Your task to perform on an android device: turn off notifications in google photos Image 0: 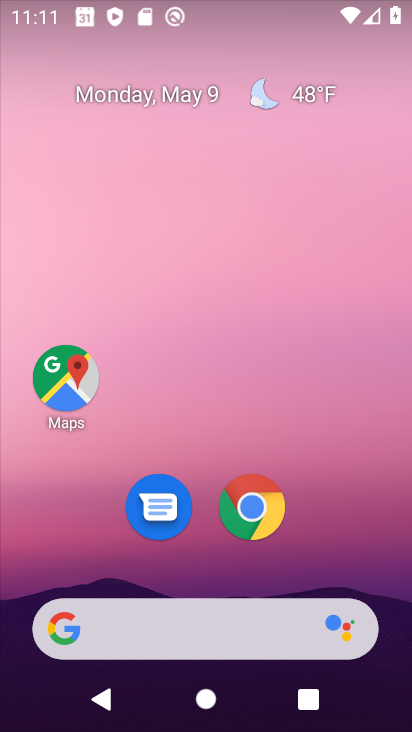
Step 0: drag from (335, 538) to (307, 166)
Your task to perform on an android device: turn off notifications in google photos Image 1: 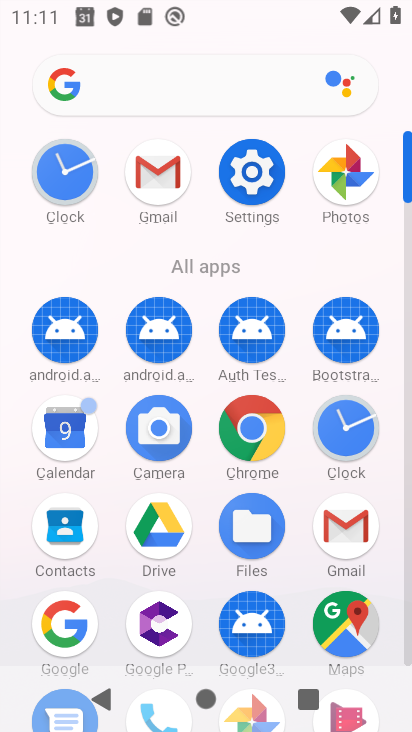
Step 1: drag from (290, 643) to (272, 391)
Your task to perform on an android device: turn off notifications in google photos Image 2: 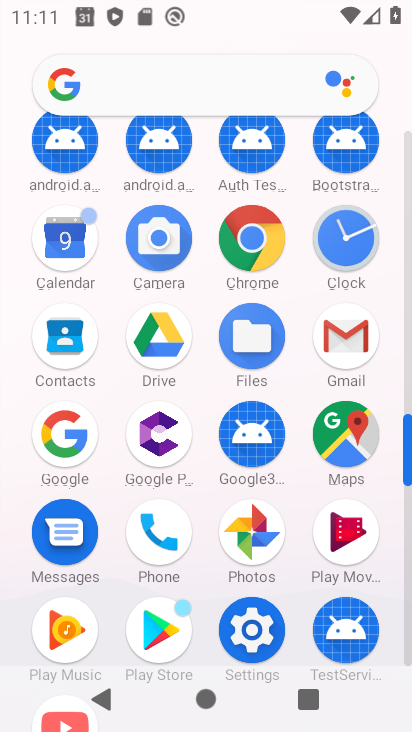
Step 2: click (254, 541)
Your task to perform on an android device: turn off notifications in google photos Image 3: 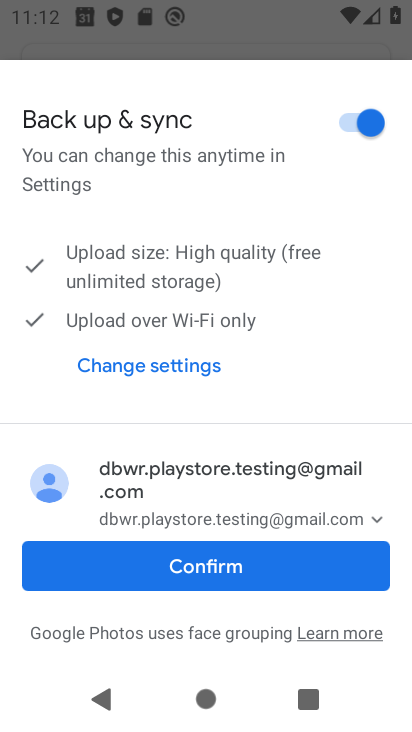
Step 3: click (270, 570)
Your task to perform on an android device: turn off notifications in google photos Image 4: 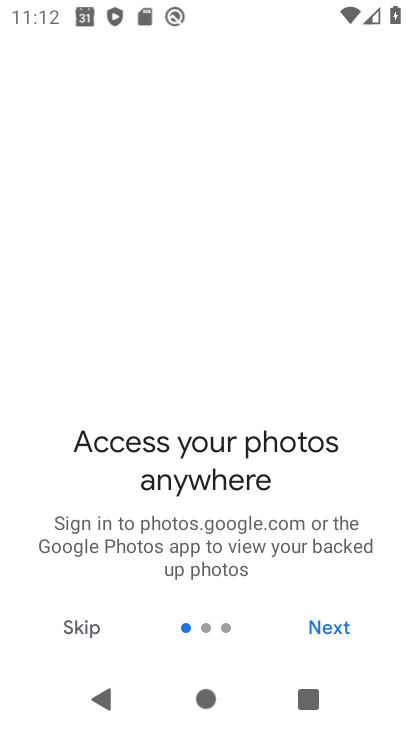
Step 4: click (320, 620)
Your task to perform on an android device: turn off notifications in google photos Image 5: 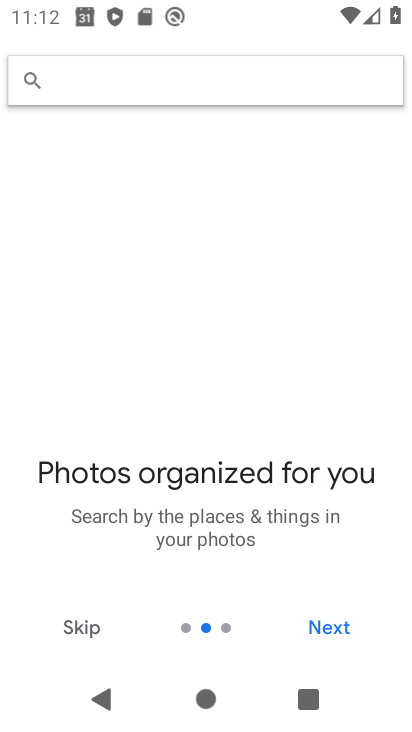
Step 5: click (322, 621)
Your task to perform on an android device: turn off notifications in google photos Image 6: 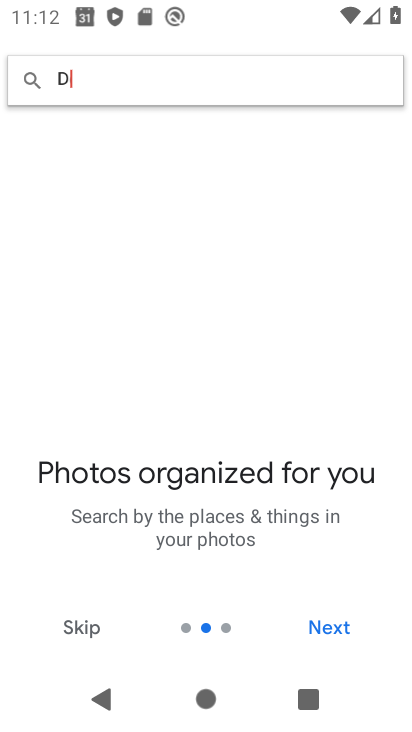
Step 6: click (323, 621)
Your task to perform on an android device: turn off notifications in google photos Image 7: 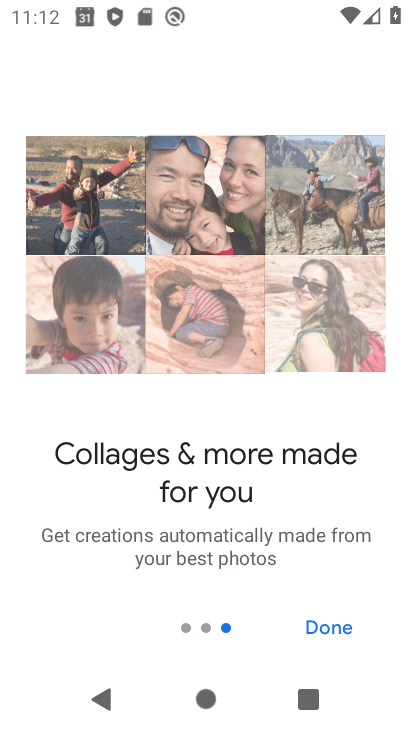
Step 7: click (323, 621)
Your task to perform on an android device: turn off notifications in google photos Image 8: 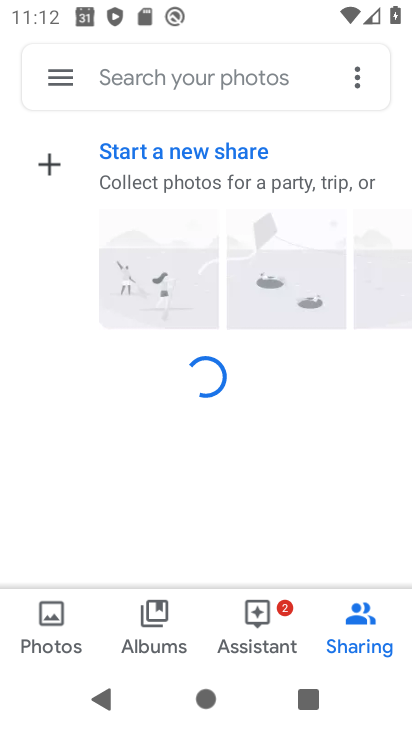
Step 8: click (57, 77)
Your task to perform on an android device: turn off notifications in google photos Image 9: 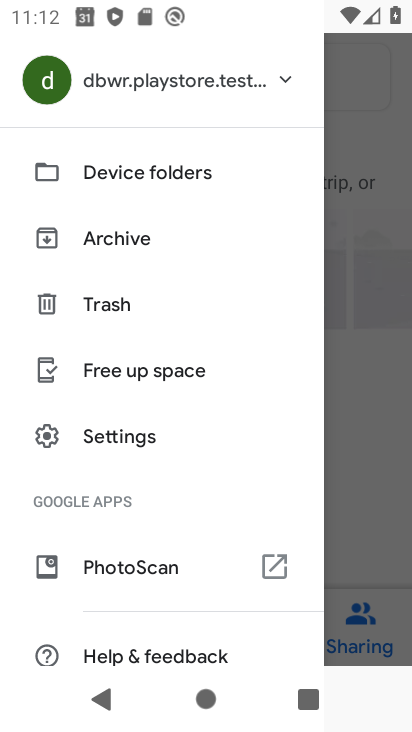
Step 9: click (131, 440)
Your task to perform on an android device: turn off notifications in google photos Image 10: 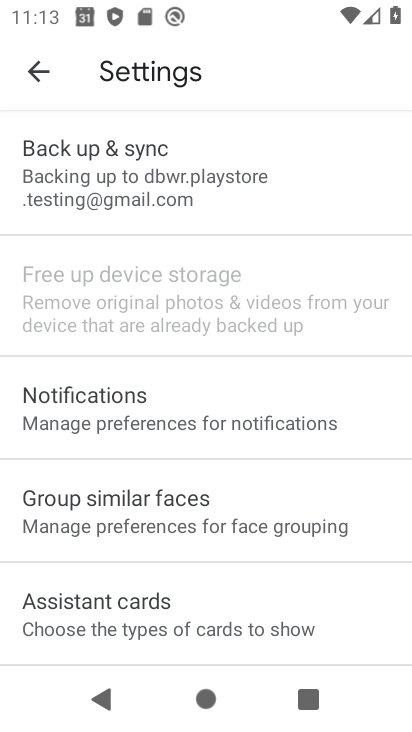
Step 10: drag from (242, 575) to (239, 414)
Your task to perform on an android device: turn off notifications in google photos Image 11: 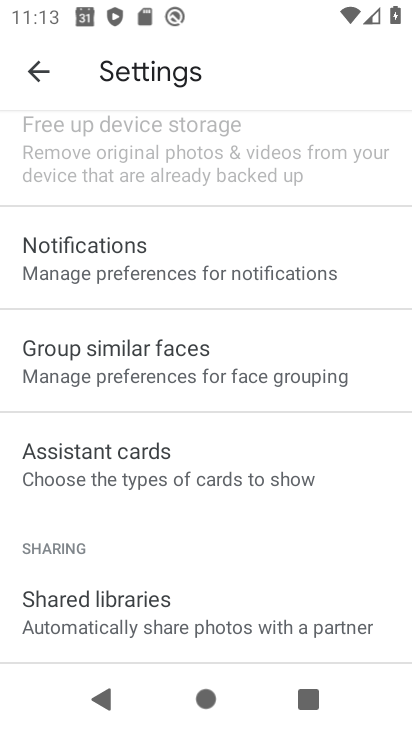
Step 11: click (197, 282)
Your task to perform on an android device: turn off notifications in google photos Image 12: 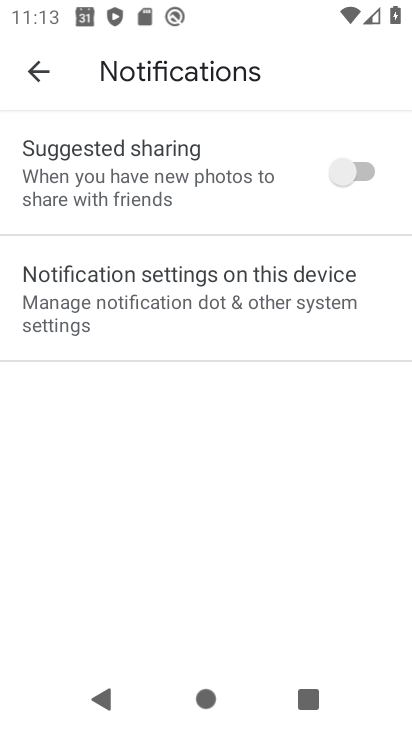
Step 12: click (228, 320)
Your task to perform on an android device: turn off notifications in google photos Image 13: 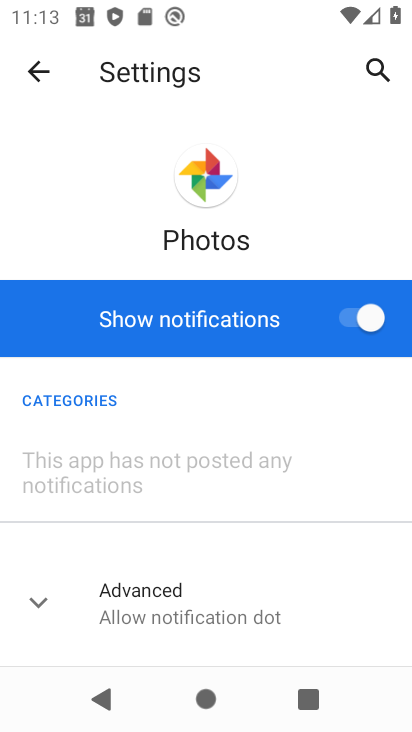
Step 13: click (347, 314)
Your task to perform on an android device: turn off notifications in google photos Image 14: 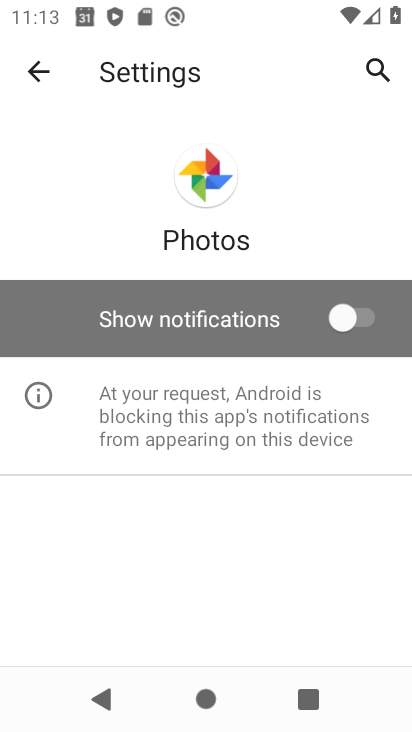
Step 14: task complete